Your task to perform on an android device: remove spam from my inbox in the gmail app Image 0: 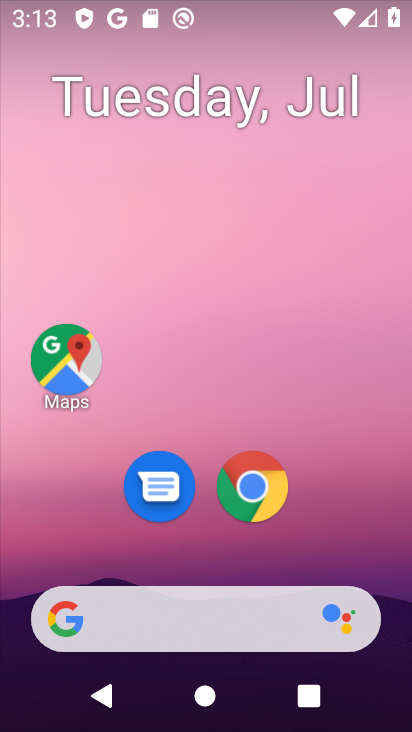
Step 0: drag from (180, 522) to (249, 46)
Your task to perform on an android device: remove spam from my inbox in the gmail app Image 1: 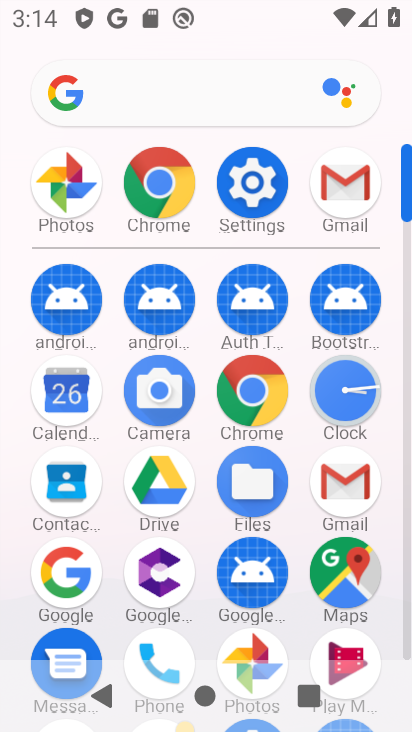
Step 1: click (345, 187)
Your task to perform on an android device: remove spam from my inbox in the gmail app Image 2: 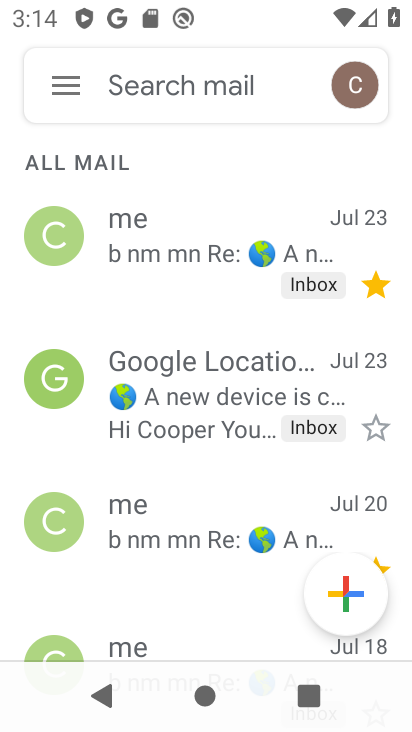
Step 2: click (75, 93)
Your task to perform on an android device: remove spam from my inbox in the gmail app Image 3: 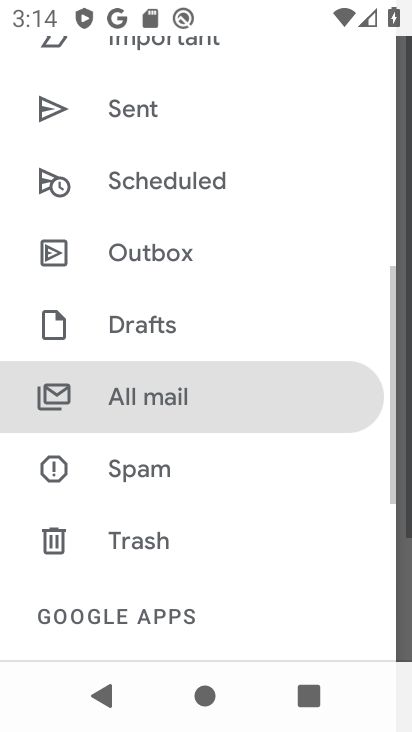
Step 3: click (146, 465)
Your task to perform on an android device: remove spam from my inbox in the gmail app Image 4: 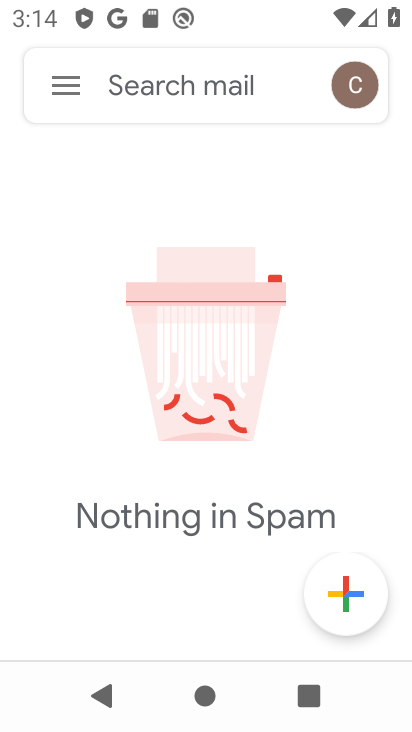
Step 4: task complete